Your task to perform on an android device: Open ESPN.com Image 0: 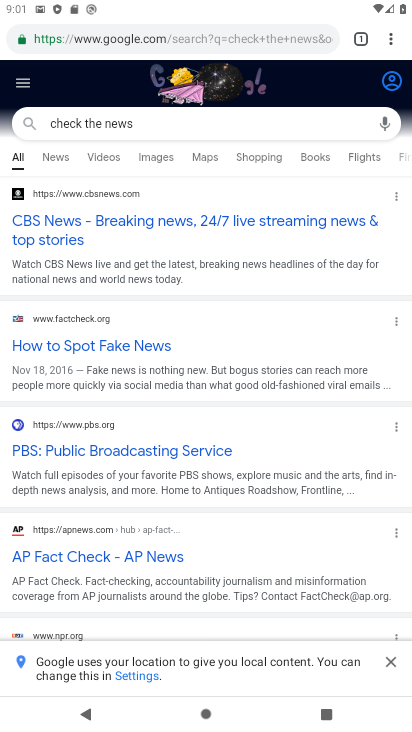
Step 0: press home button
Your task to perform on an android device: Open ESPN.com Image 1: 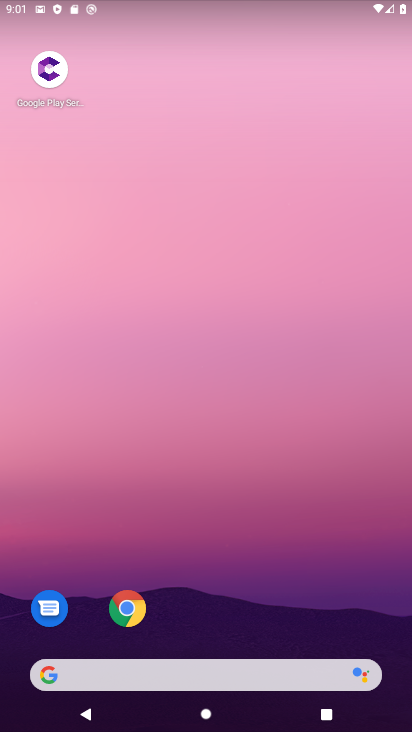
Step 1: drag from (279, 665) to (264, 140)
Your task to perform on an android device: Open ESPN.com Image 2: 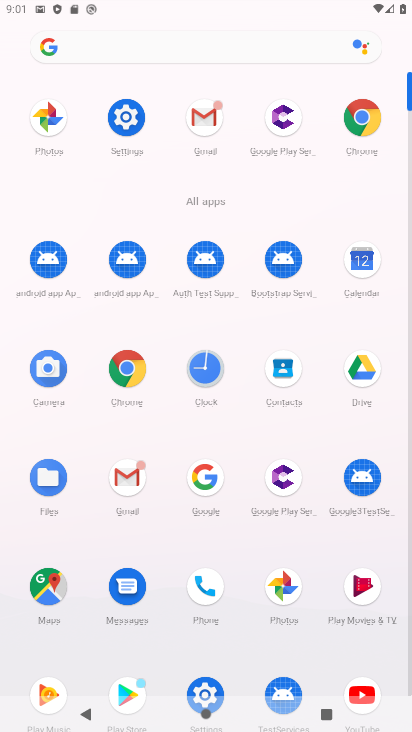
Step 2: click (124, 370)
Your task to perform on an android device: Open ESPN.com Image 3: 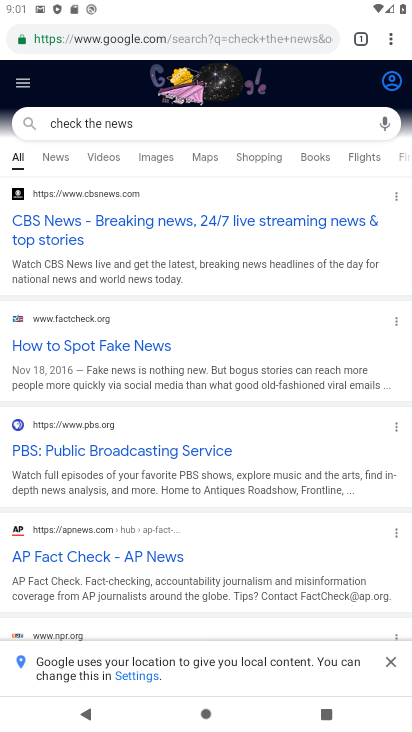
Step 3: click (254, 45)
Your task to perform on an android device: Open ESPN.com Image 4: 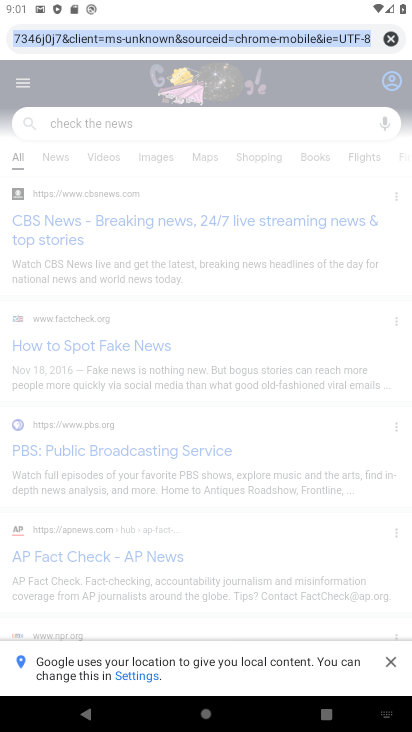
Step 4: type "espn.com"
Your task to perform on an android device: Open ESPN.com Image 5: 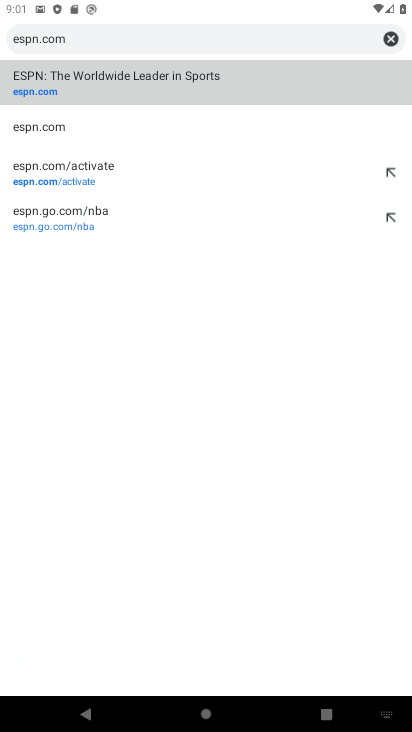
Step 5: click (135, 96)
Your task to perform on an android device: Open ESPN.com Image 6: 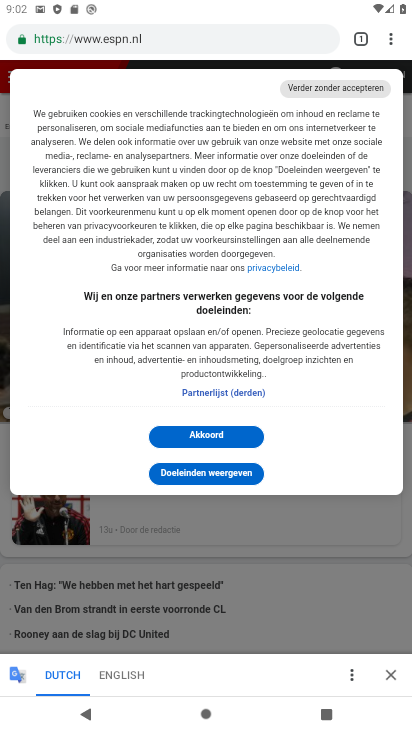
Step 6: task complete